Your task to perform on an android device: see creations saved in the google photos Image 0: 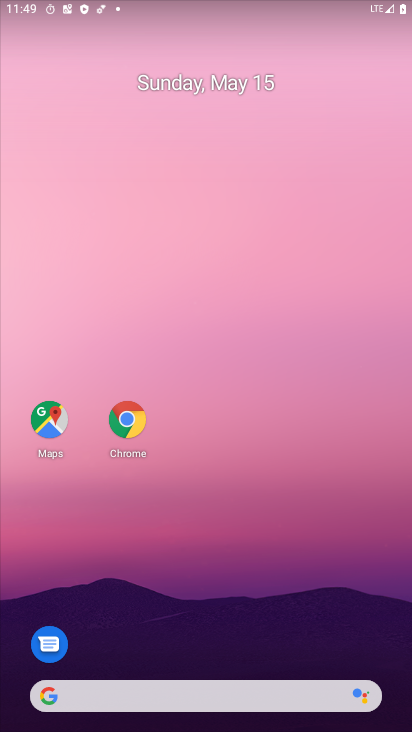
Step 0: drag from (199, 641) to (246, 120)
Your task to perform on an android device: see creations saved in the google photos Image 1: 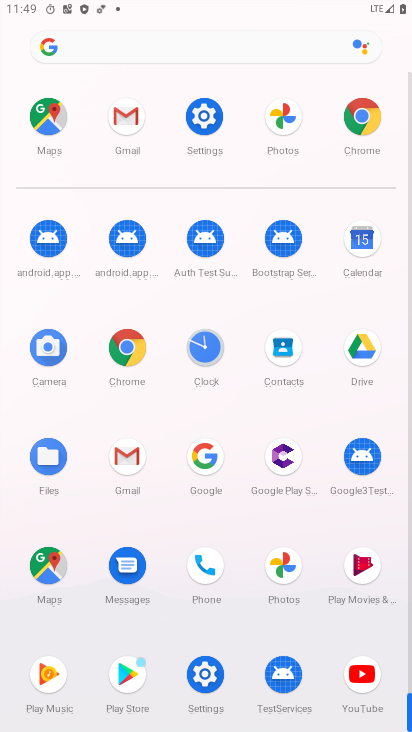
Step 1: drag from (243, 617) to (232, 216)
Your task to perform on an android device: see creations saved in the google photos Image 2: 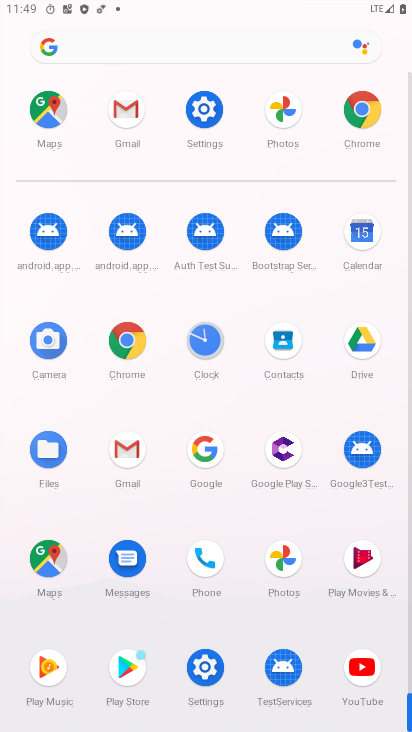
Step 2: click (280, 570)
Your task to perform on an android device: see creations saved in the google photos Image 3: 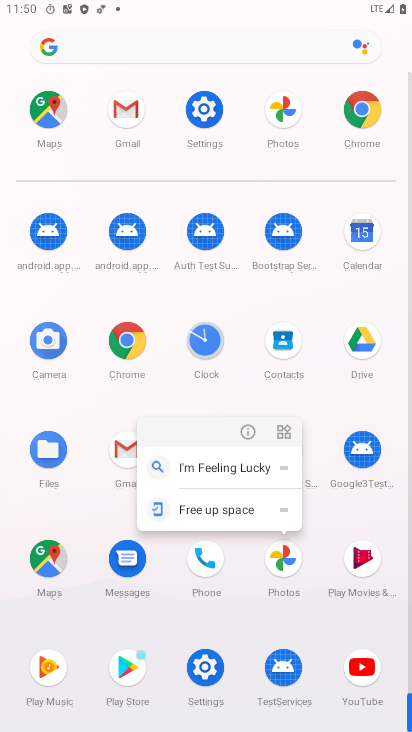
Step 3: click (242, 424)
Your task to perform on an android device: see creations saved in the google photos Image 4: 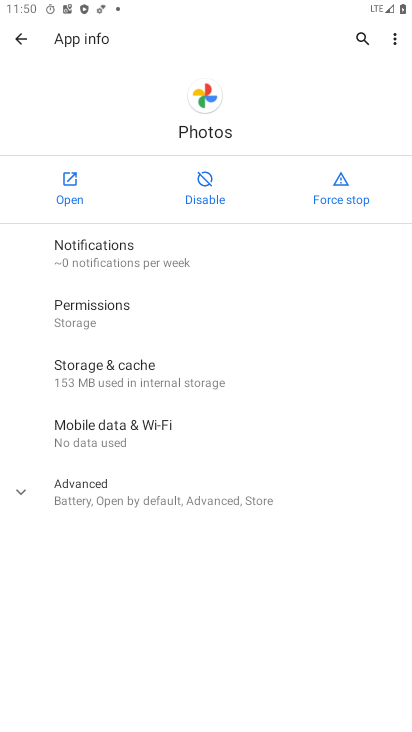
Step 4: click (71, 193)
Your task to perform on an android device: see creations saved in the google photos Image 5: 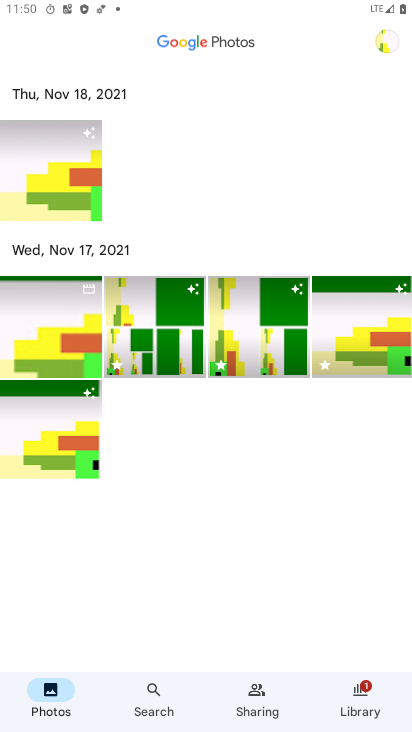
Step 5: drag from (236, 587) to (287, 310)
Your task to perform on an android device: see creations saved in the google photos Image 6: 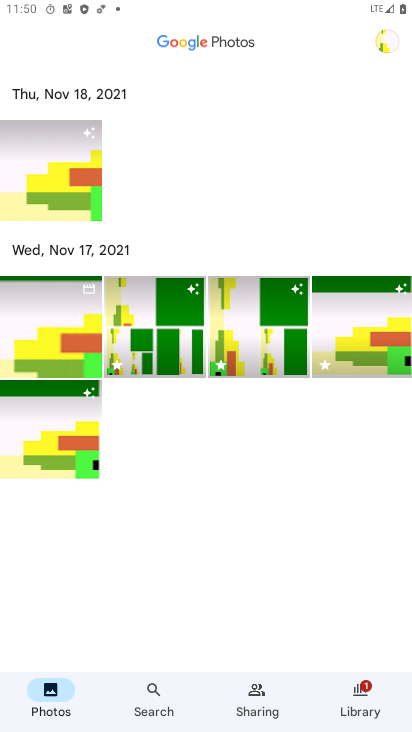
Step 6: click (29, 284)
Your task to perform on an android device: see creations saved in the google photos Image 7: 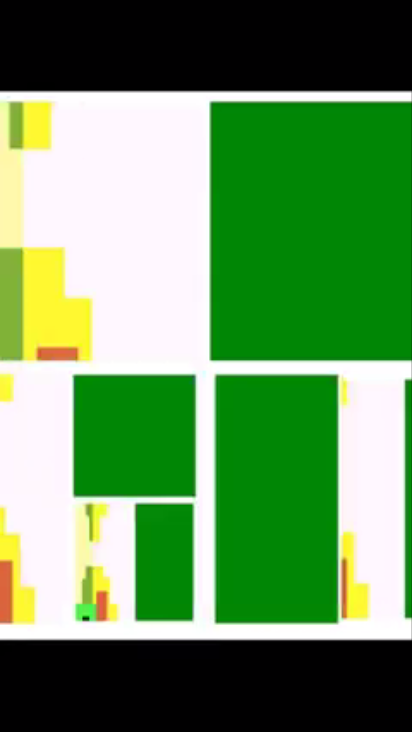
Step 7: drag from (371, 449) to (13, 449)
Your task to perform on an android device: see creations saved in the google photos Image 8: 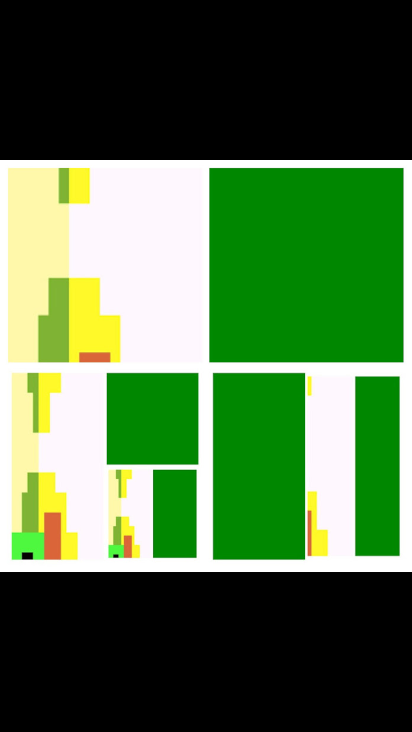
Step 8: drag from (409, 450) to (154, 439)
Your task to perform on an android device: see creations saved in the google photos Image 9: 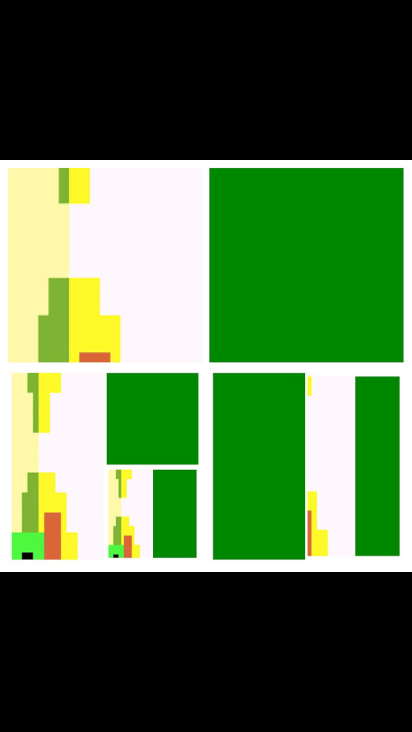
Step 9: drag from (411, 402) to (25, 408)
Your task to perform on an android device: see creations saved in the google photos Image 10: 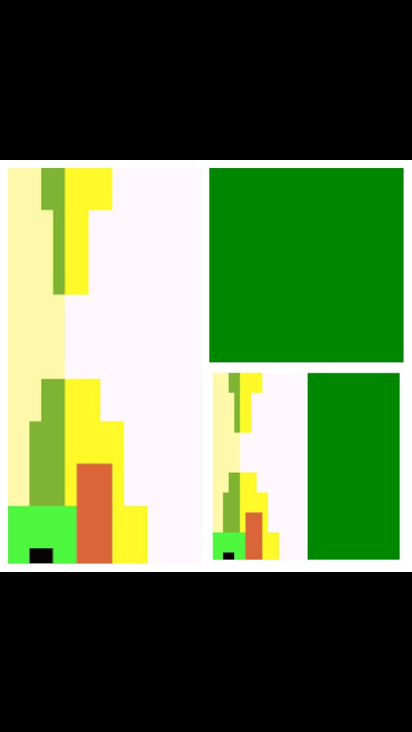
Step 10: drag from (382, 425) to (0, 428)
Your task to perform on an android device: see creations saved in the google photos Image 11: 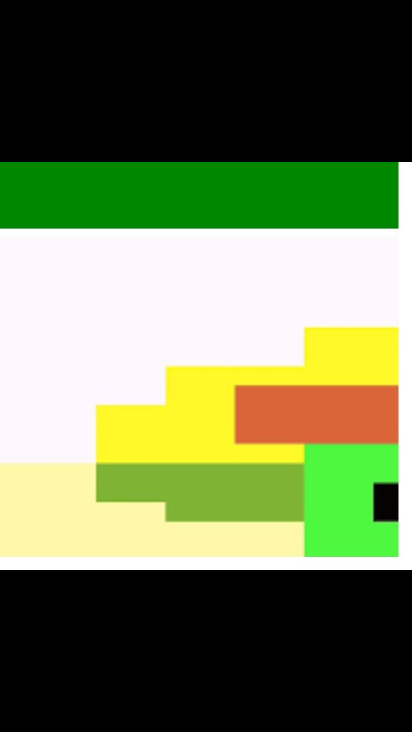
Step 11: drag from (395, 393) to (17, 447)
Your task to perform on an android device: see creations saved in the google photos Image 12: 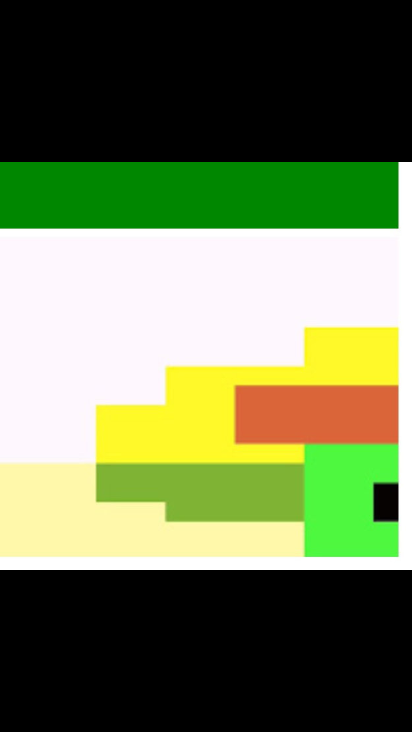
Step 12: press back button
Your task to perform on an android device: see creations saved in the google photos Image 13: 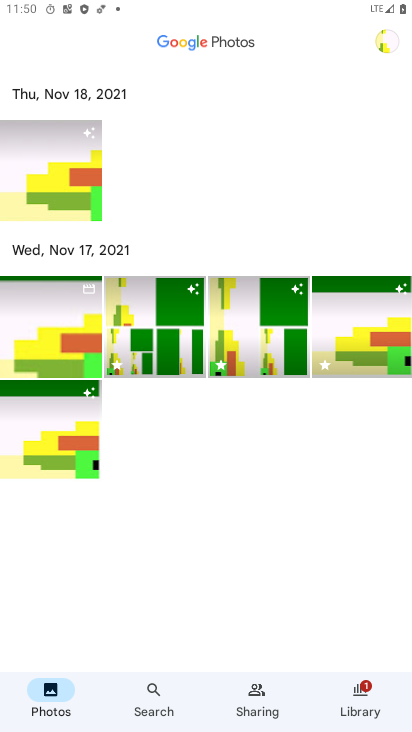
Step 13: click (152, 702)
Your task to perform on an android device: see creations saved in the google photos Image 14: 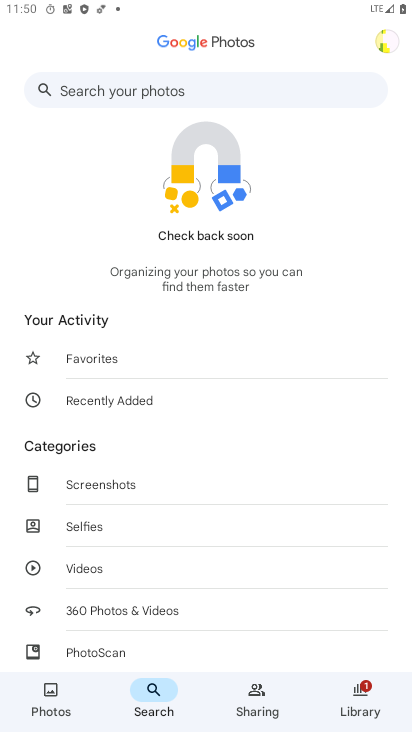
Step 14: drag from (190, 585) to (319, 127)
Your task to perform on an android device: see creations saved in the google photos Image 15: 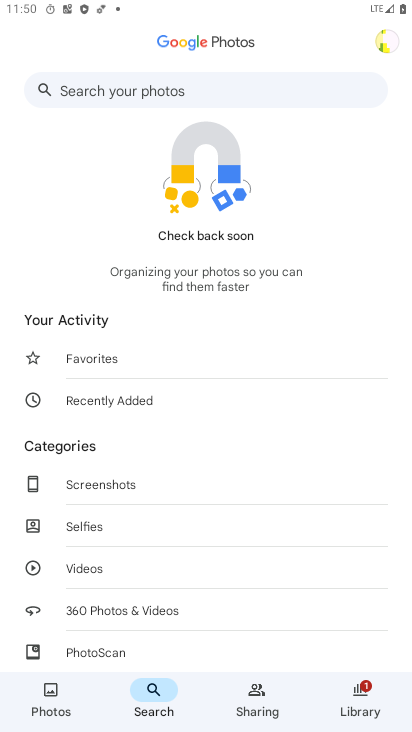
Step 15: drag from (193, 632) to (222, 241)
Your task to perform on an android device: see creations saved in the google photos Image 16: 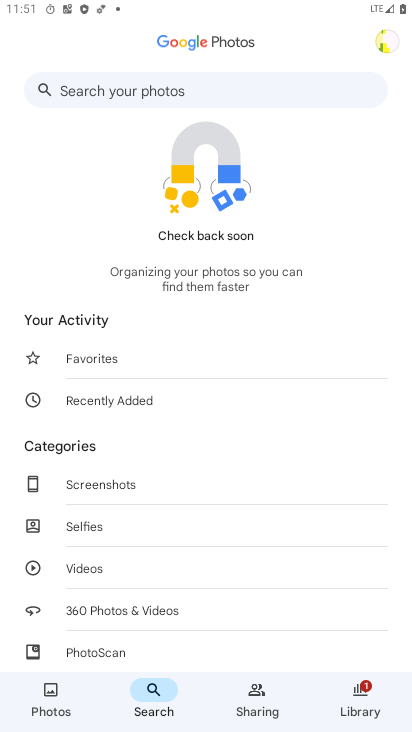
Step 16: drag from (223, 561) to (305, 104)
Your task to perform on an android device: see creations saved in the google photos Image 17: 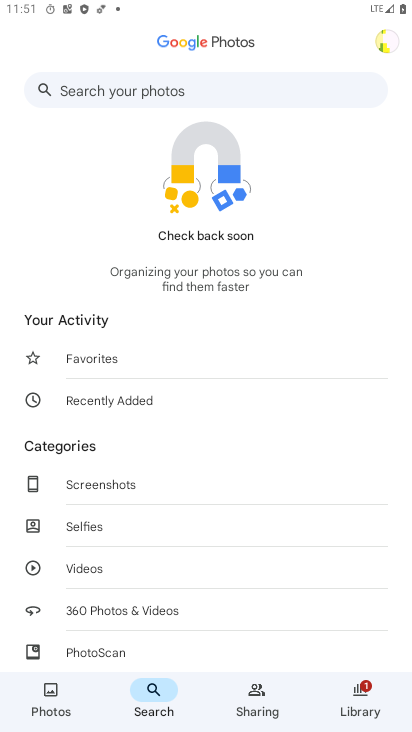
Step 17: drag from (260, 584) to (355, 156)
Your task to perform on an android device: see creations saved in the google photos Image 18: 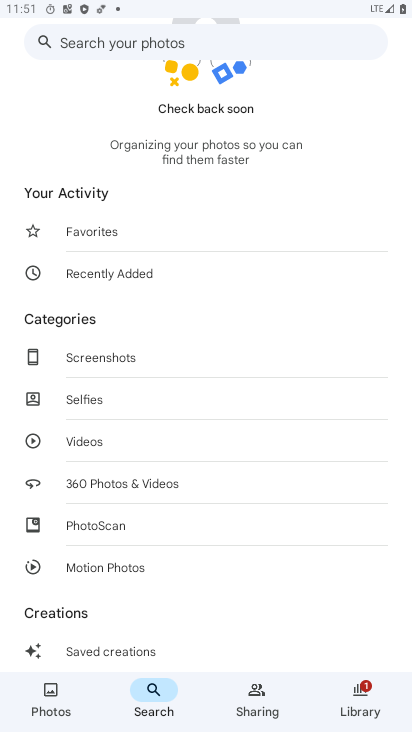
Step 18: click (127, 656)
Your task to perform on an android device: see creations saved in the google photos Image 19: 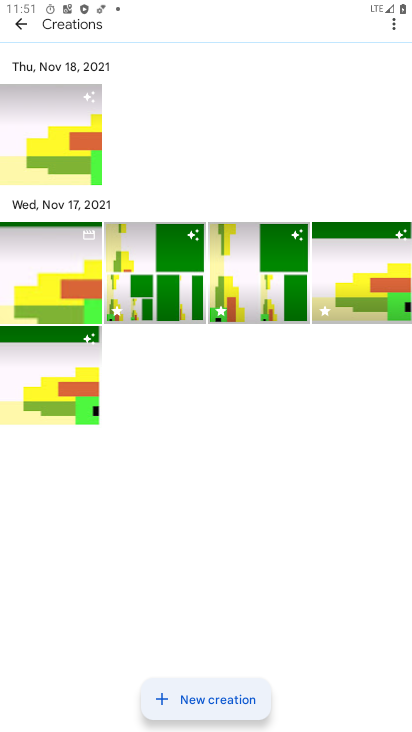
Step 19: click (76, 307)
Your task to perform on an android device: see creations saved in the google photos Image 20: 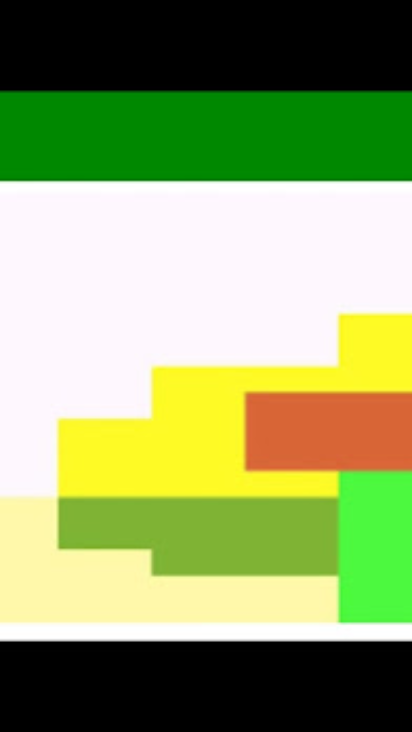
Step 20: task complete